Your task to perform on an android device: Open Google Chrome and click the shortcut for Amazon.com Image 0: 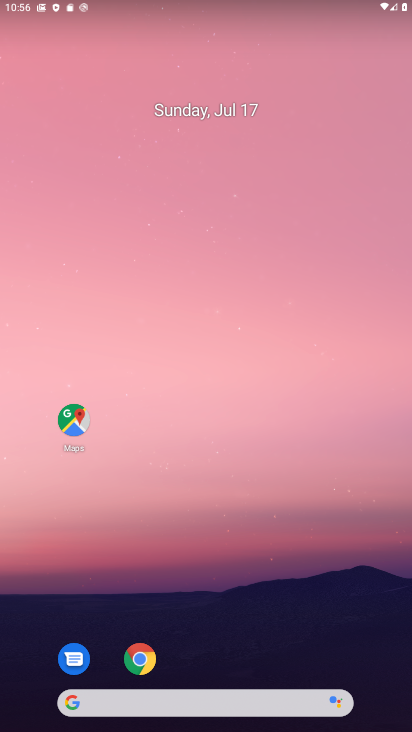
Step 0: click (136, 660)
Your task to perform on an android device: Open Google Chrome and click the shortcut for Amazon.com Image 1: 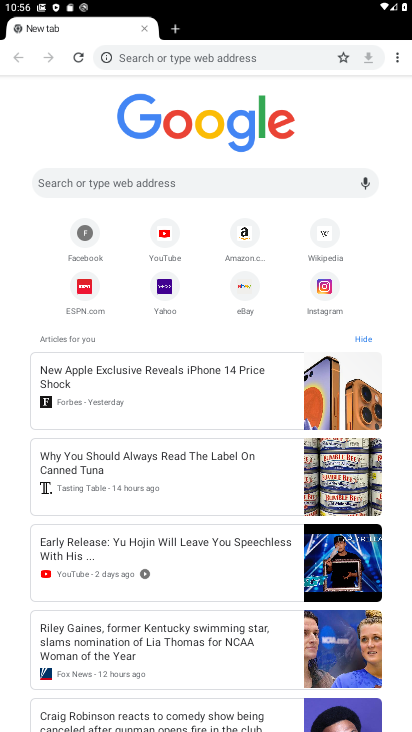
Step 1: click (245, 231)
Your task to perform on an android device: Open Google Chrome and click the shortcut for Amazon.com Image 2: 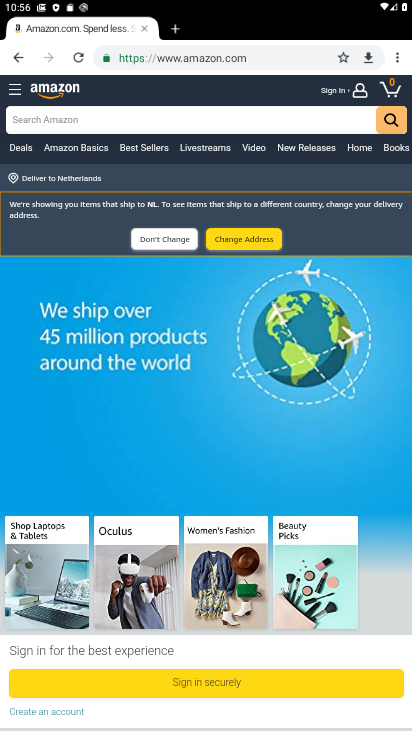
Step 2: task complete